Your task to perform on an android device: Set the phone to "Do not disturb". Image 0: 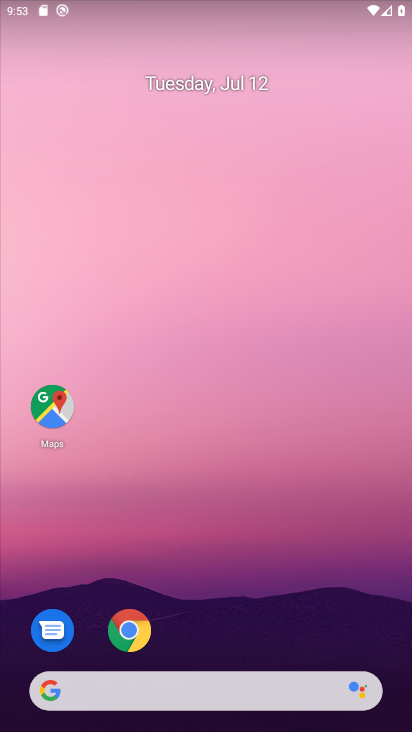
Step 0: drag from (271, 505) to (242, 305)
Your task to perform on an android device: Set the phone to "Do not disturb". Image 1: 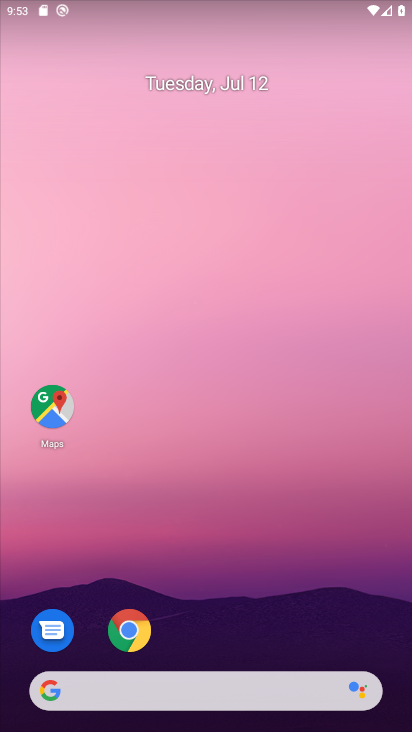
Step 1: drag from (198, 243) to (221, 4)
Your task to perform on an android device: Set the phone to "Do not disturb". Image 2: 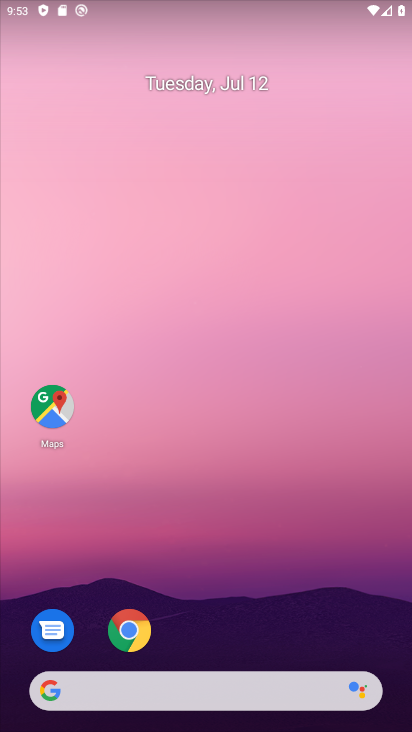
Step 2: drag from (205, 671) to (192, 266)
Your task to perform on an android device: Set the phone to "Do not disturb". Image 3: 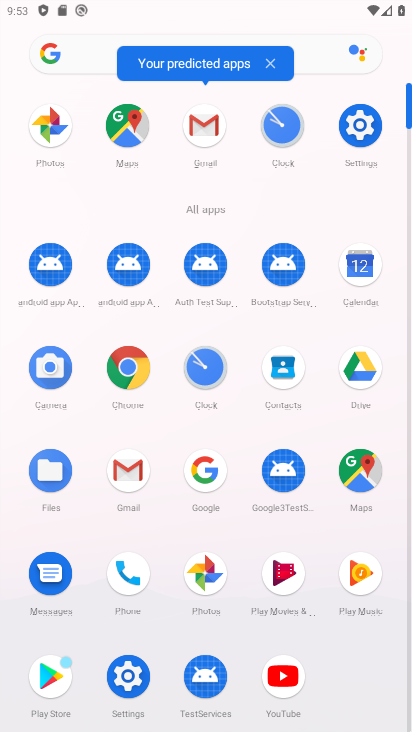
Step 3: click (356, 132)
Your task to perform on an android device: Set the phone to "Do not disturb". Image 4: 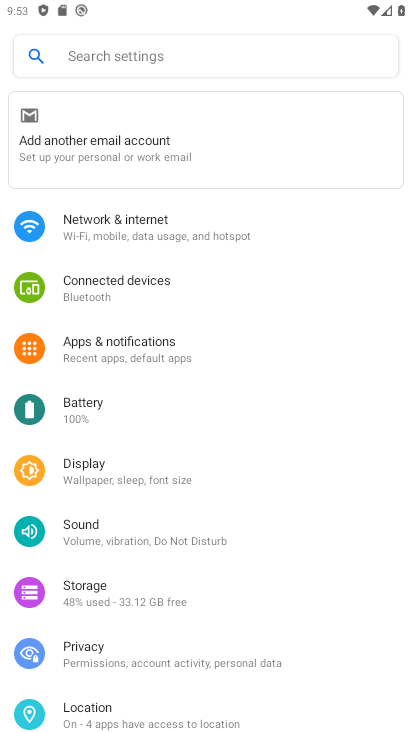
Step 4: click (133, 537)
Your task to perform on an android device: Set the phone to "Do not disturb". Image 5: 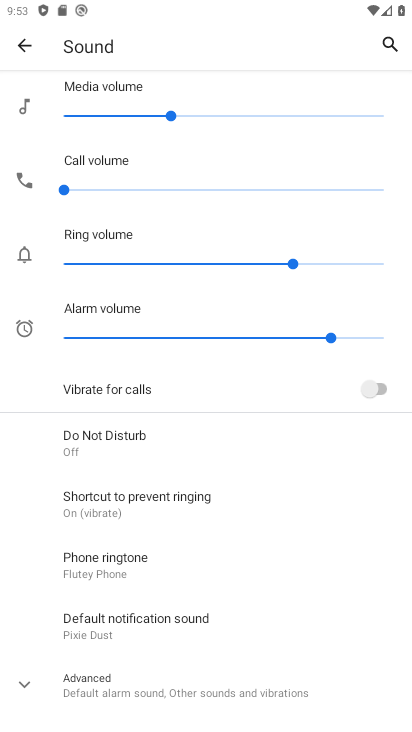
Step 5: click (114, 450)
Your task to perform on an android device: Set the phone to "Do not disturb". Image 6: 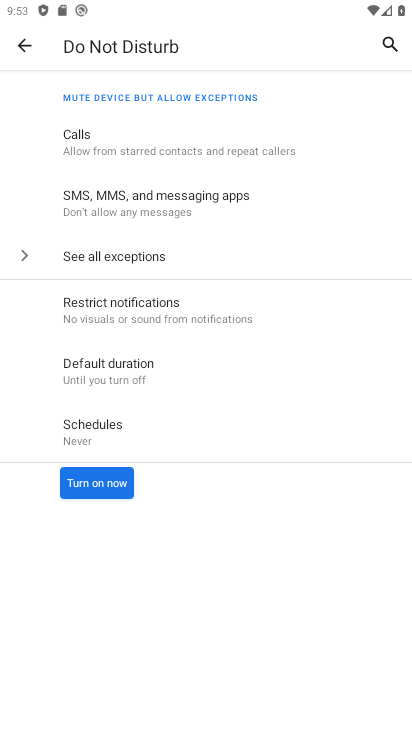
Step 6: click (101, 491)
Your task to perform on an android device: Set the phone to "Do not disturb". Image 7: 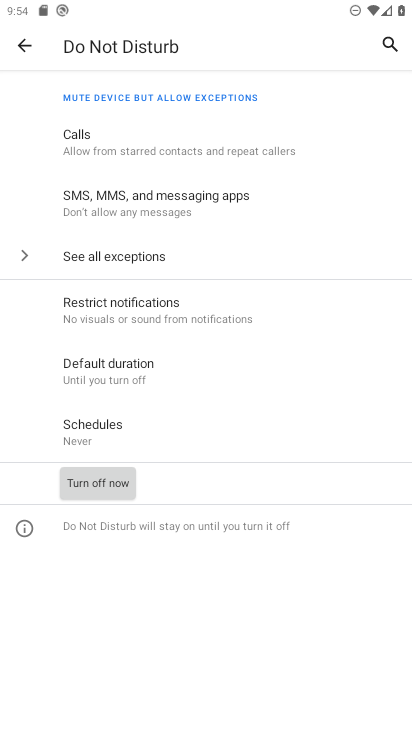
Step 7: task complete